Your task to perform on an android device: open a bookmark in the chrome app Image 0: 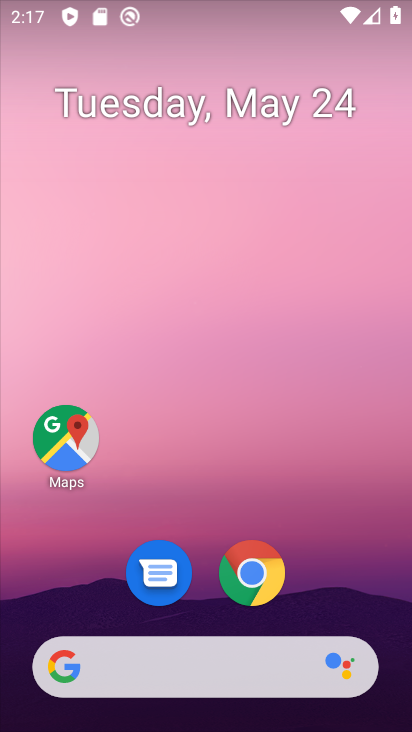
Step 0: drag from (339, 566) to (236, 30)
Your task to perform on an android device: open a bookmark in the chrome app Image 1: 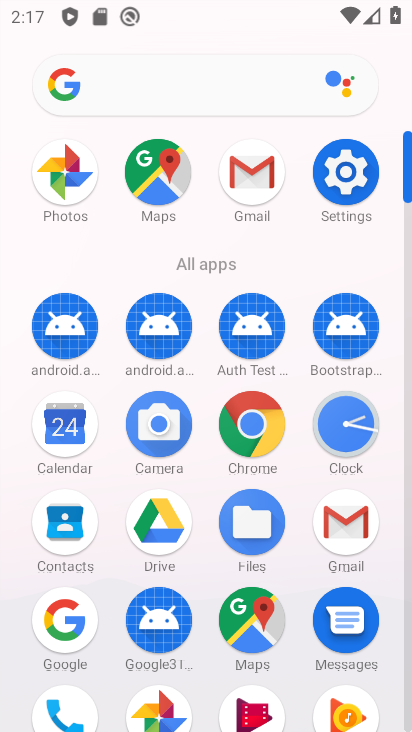
Step 1: drag from (15, 327) to (27, 172)
Your task to perform on an android device: open a bookmark in the chrome app Image 2: 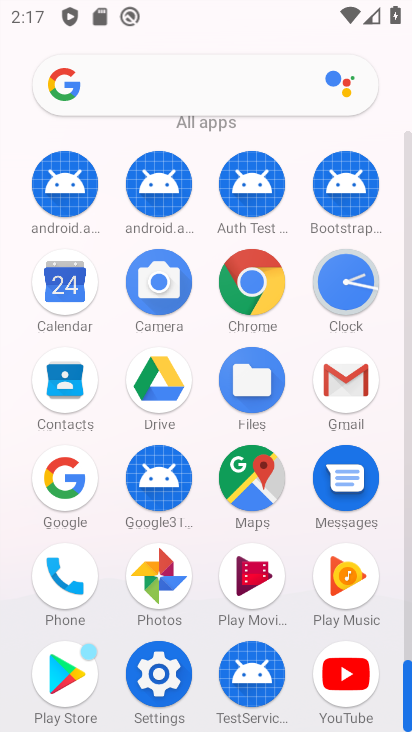
Step 2: click (252, 282)
Your task to perform on an android device: open a bookmark in the chrome app Image 3: 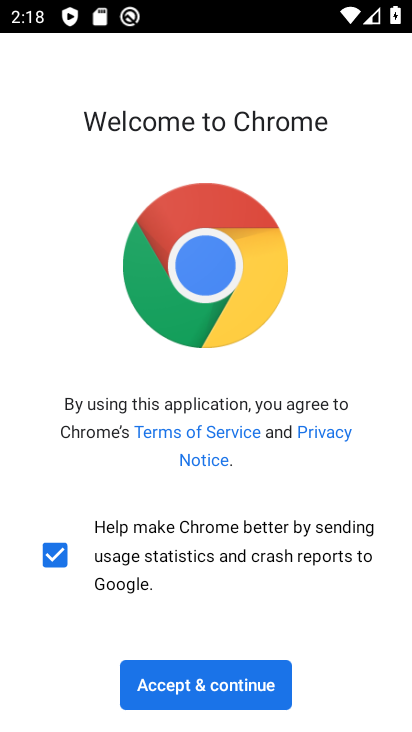
Step 3: click (220, 685)
Your task to perform on an android device: open a bookmark in the chrome app Image 4: 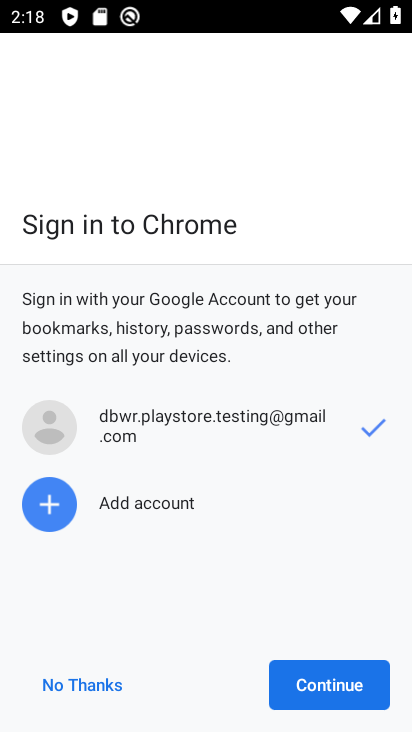
Step 4: click (330, 690)
Your task to perform on an android device: open a bookmark in the chrome app Image 5: 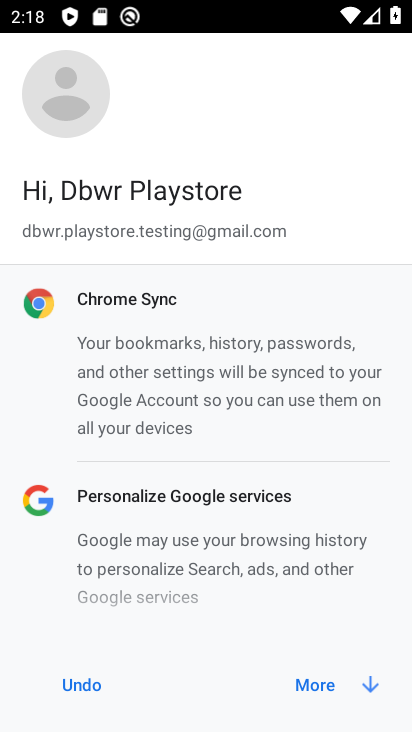
Step 5: click (311, 691)
Your task to perform on an android device: open a bookmark in the chrome app Image 6: 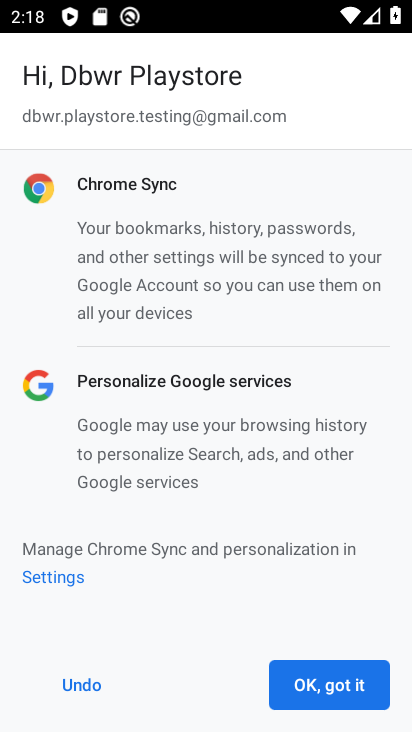
Step 6: click (311, 690)
Your task to perform on an android device: open a bookmark in the chrome app Image 7: 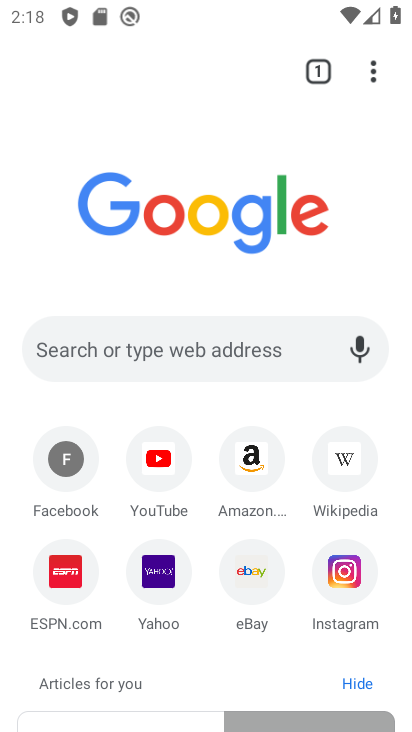
Step 7: task complete